Your task to perform on an android device: Open internet settings Image 0: 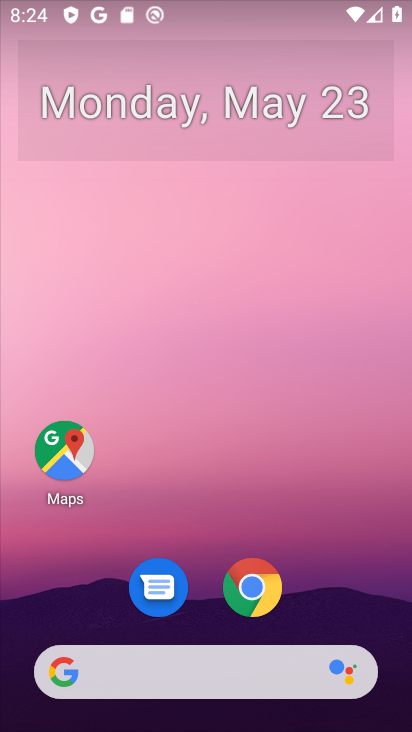
Step 0: drag from (81, 552) to (151, 101)
Your task to perform on an android device: Open internet settings Image 1: 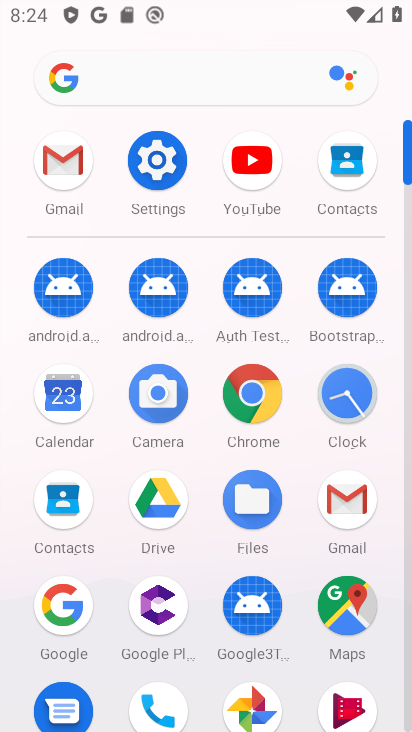
Step 1: click (151, 151)
Your task to perform on an android device: Open internet settings Image 2: 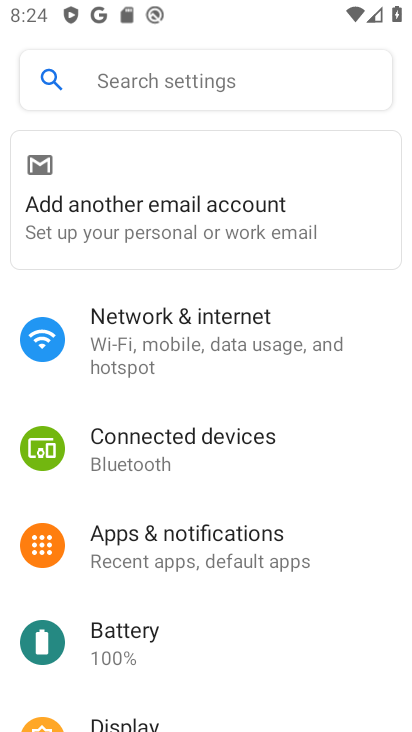
Step 2: click (170, 341)
Your task to perform on an android device: Open internet settings Image 3: 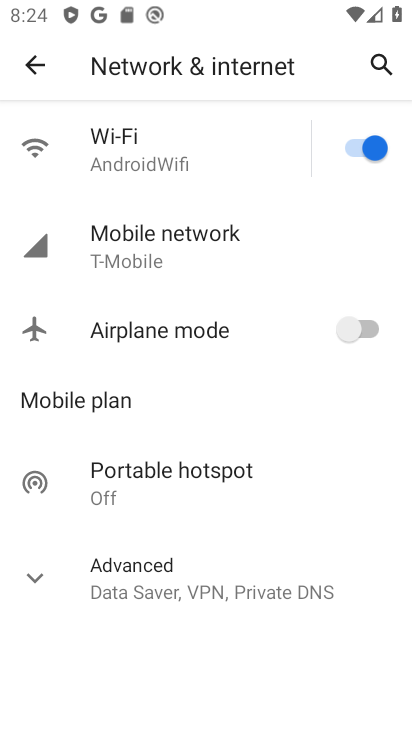
Step 3: task complete